Your task to perform on an android device: Open Youtube and go to "Your channel" Image 0: 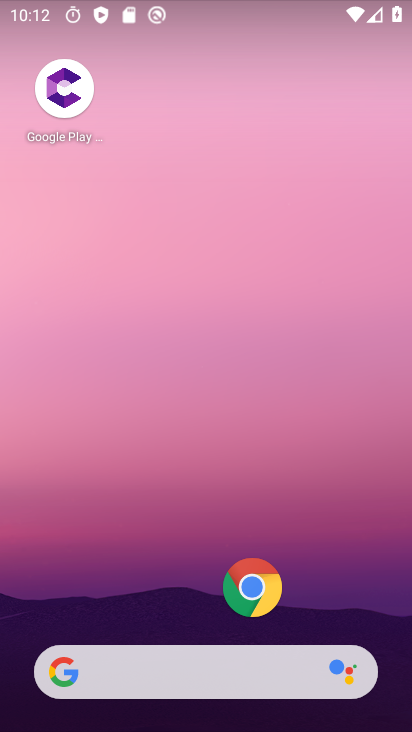
Step 0: drag from (178, 638) to (286, 9)
Your task to perform on an android device: Open Youtube and go to "Your channel" Image 1: 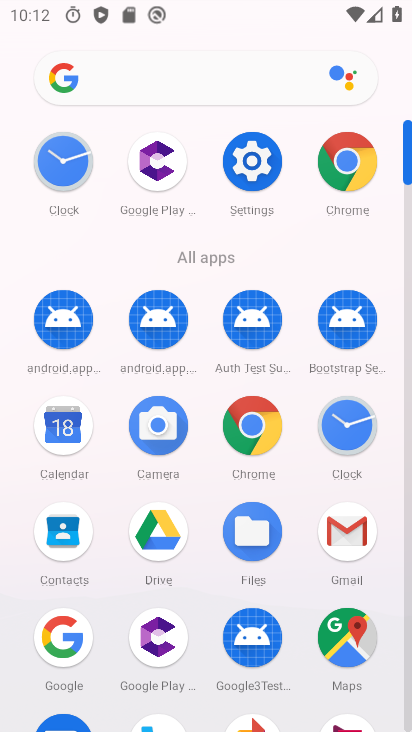
Step 1: drag from (285, 585) to (321, 41)
Your task to perform on an android device: Open Youtube and go to "Your channel" Image 2: 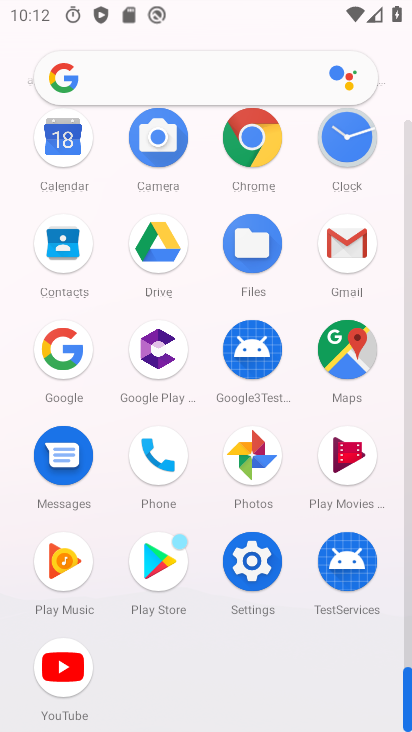
Step 2: click (64, 671)
Your task to perform on an android device: Open Youtube and go to "Your channel" Image 3: 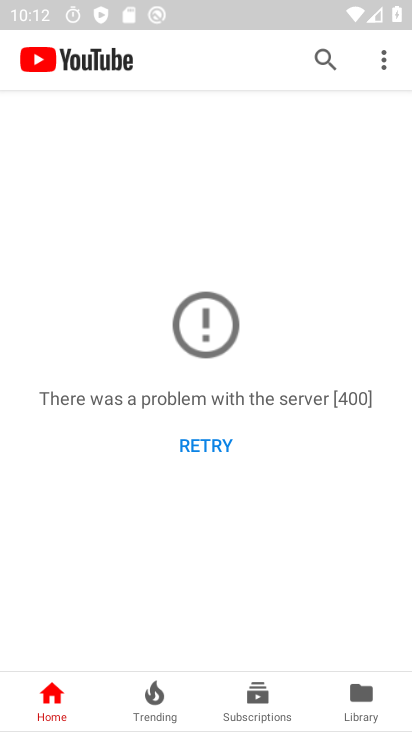
Step 3: click (352, 710)
Your task to perform on an android device: Open Youtube and go to "Your channel" Image 4: 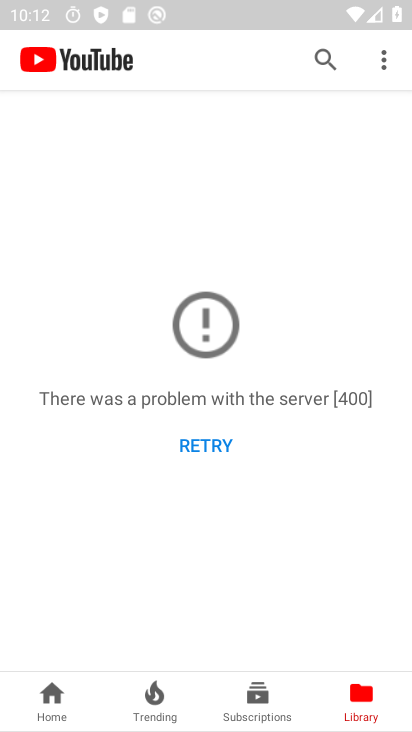
Step 4: click (387, 65)
Your task to perform on an android device: Open Youtube and go to "Your channel" Image 5: 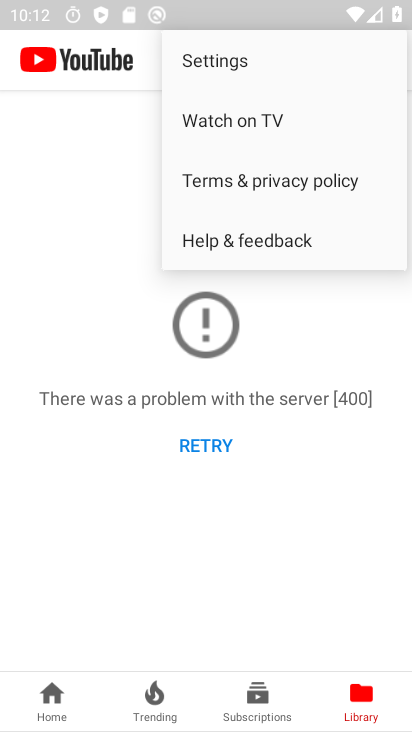
Step 5: click (234, 55)
Your task to perform on an android device: Open Youtube and go to "Your channel" Image 6: 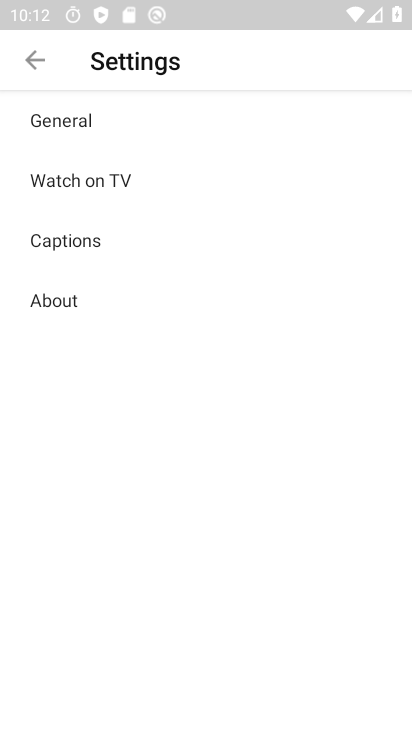
Step 6: click (62, 117)
Your task to perform on an android device: Open Youtube and go to "Your channel" Image 7: 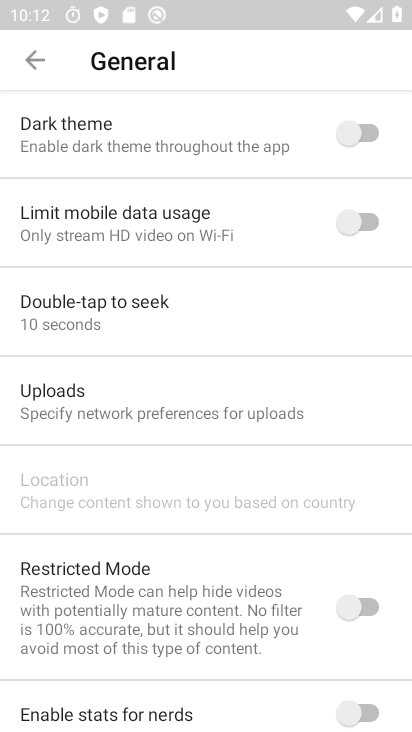
Step 7: click (27, 49)
Your task to perform on an android device: Open Youtube and go to "Your channel" Image 8: 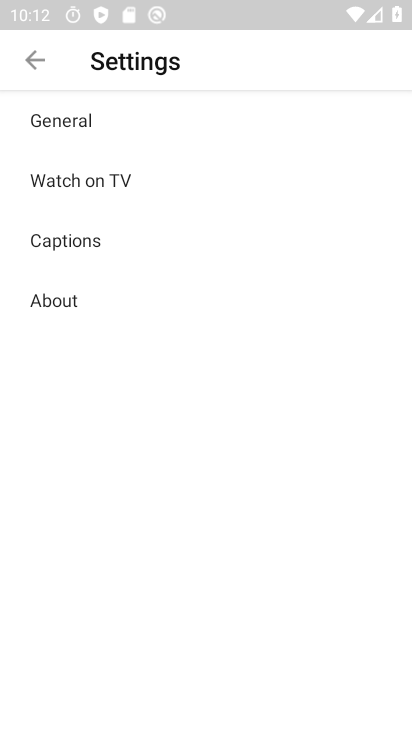
Step 8: click (80, 307)
Your task to perform on an android device: Open Youtube and go to "Your channel" Image 9: 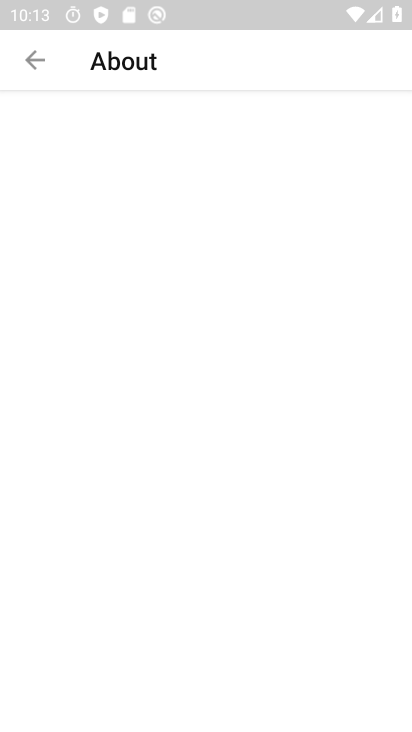
Step 9: task complete